Your task to perform on an android device: refresh tabs in the chrome app Image 0: 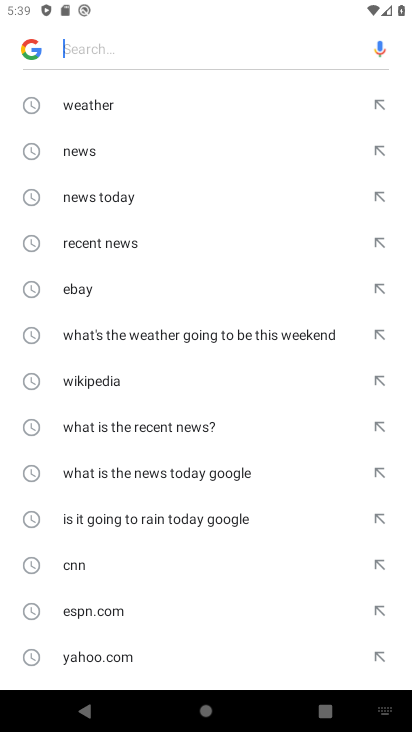
Step 0: press home button
Your task to perform on an android device: refresh tabs in the chrome app Image 1: 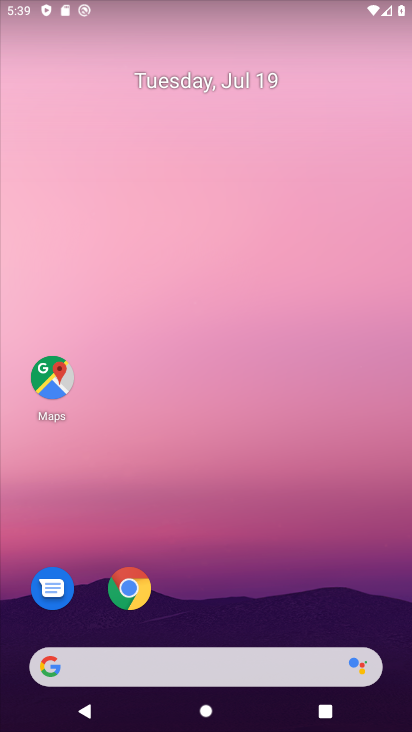
Step 1: click (130, 595)
Your task to perform on an android device: refresh tabs in the chrome app Image 2: 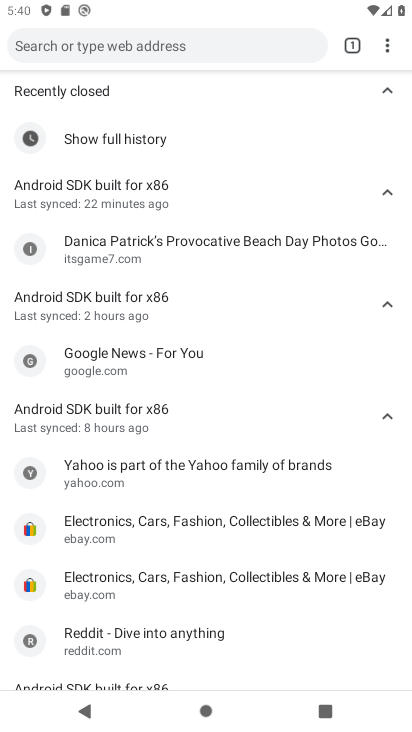
Step 2: click (395, 52)
Your task to perform on an android device: refresh tabs in the chrome app Image 3: 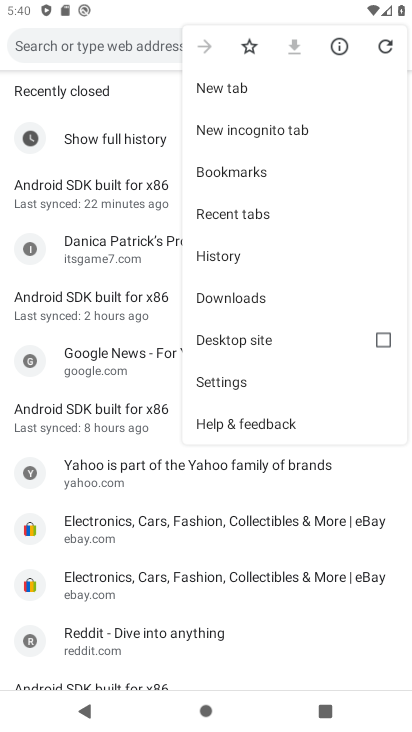
Step 3: click (389, 39)
Your task to perform on an android device: refresh tabs in the chrome app Image 4: 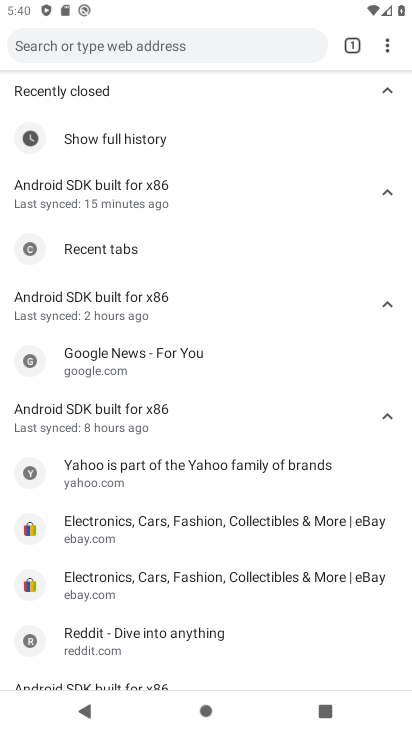
Step 4: click (395, 59)
Your task to perform on an android device: refresh tabs in the chrome app Image 5: 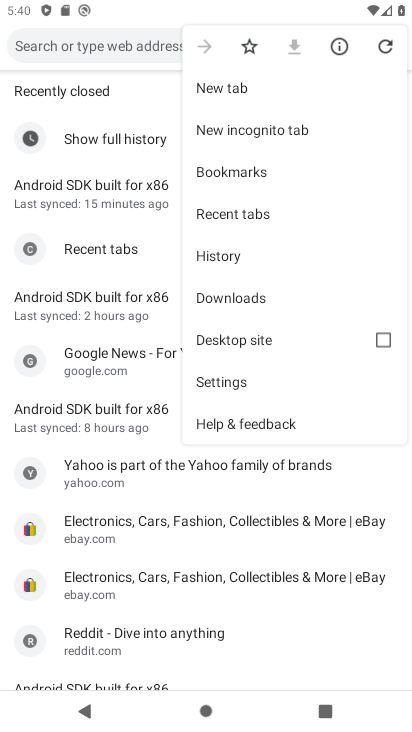
Step 5: click (392, 52)
Your task to perform on an android device: refresh tabs in the chrome app Image 6: 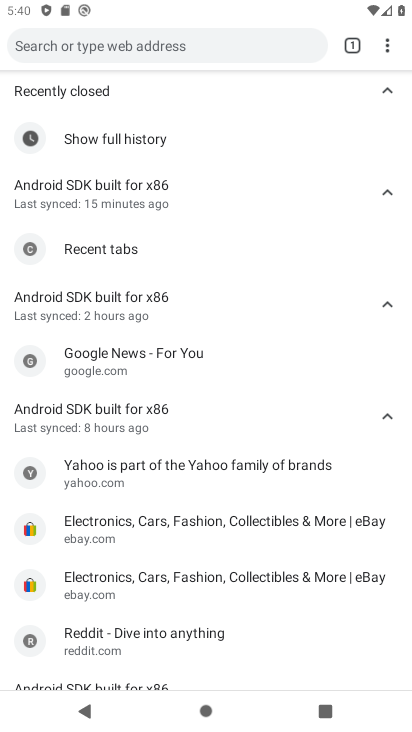
Step 6: click (392, 52)
Your task to perform on an android device: refresh tabs in the chrome app Image 7: 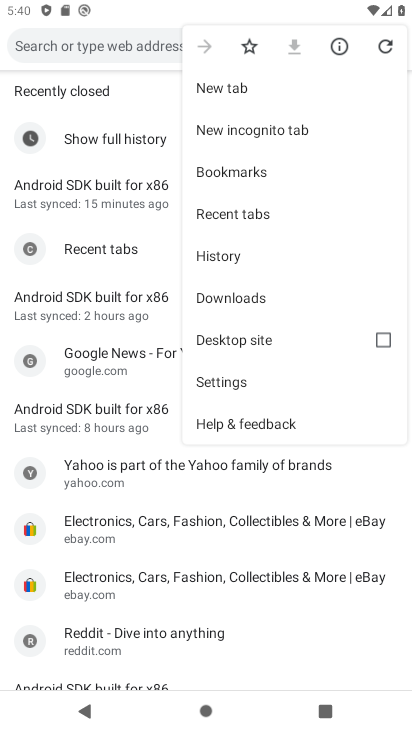
Step 7: task complete